Your task to perform on an android device: Go to Maps Image 0: 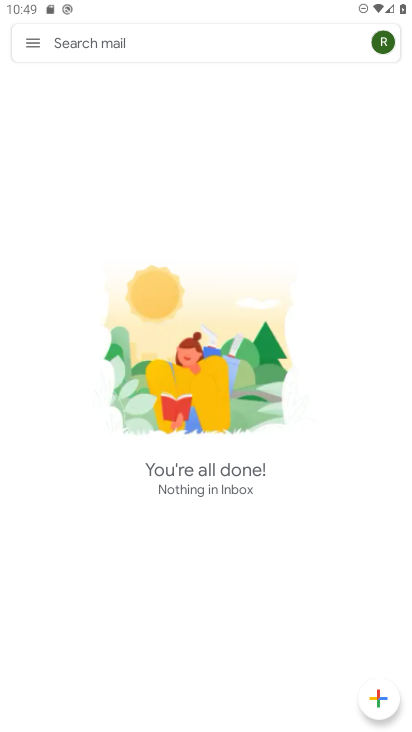
Step 0: press home button
Your task to perform on an android device: Go to Maps Image 1: 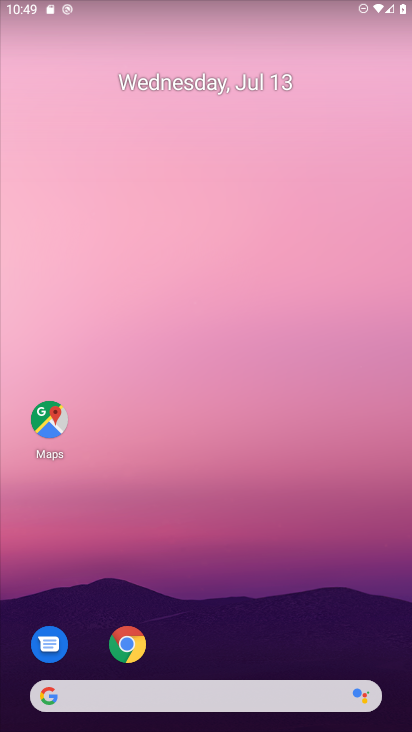
Step 1: click (50, 427)
Your task to perform on an android device: Go to Maps Image 2: 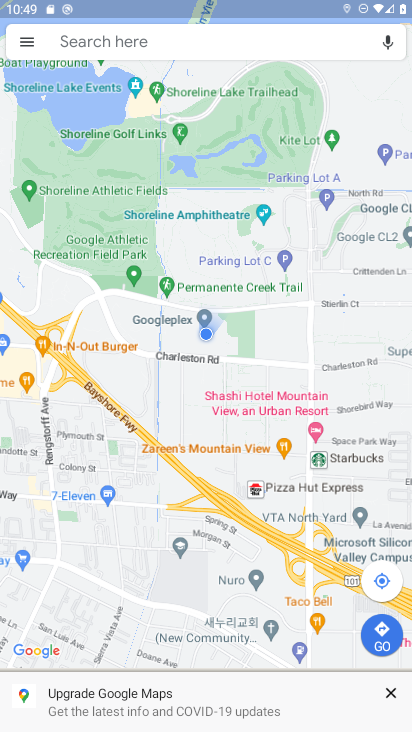
Step 2: task complete